Your task to perform on an android device: Search for Italian restaurants on Maps Image 0: 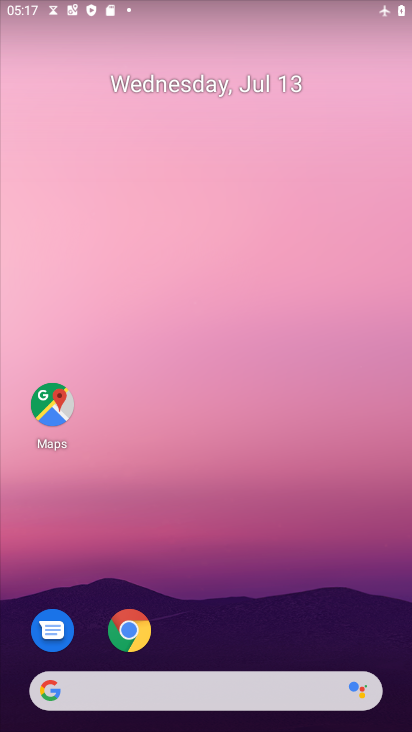
Step 0: drag from (231, 650) to (330, 0)
Your task to perform on an android device: Search for Italian restaurants on Maps Image 1: 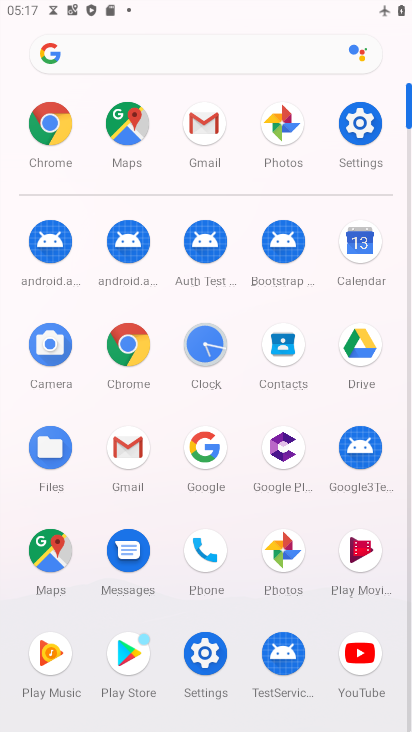
Step 1: click (48, 556)
Your task to perform on an android device: Search for Italian restaurants on Maps Image 2: 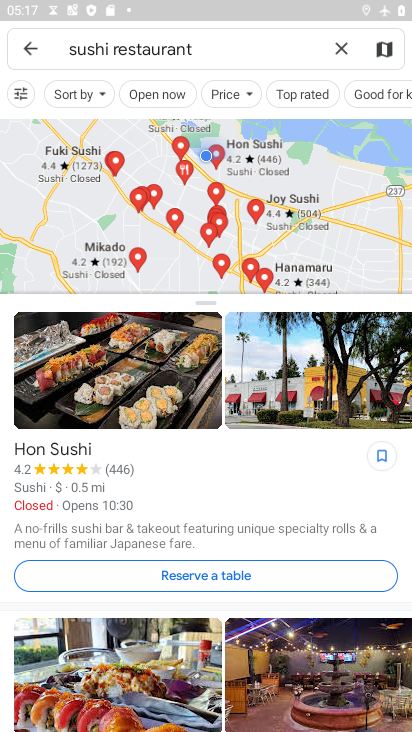
Step 2: click (334, 38)
Your task to perform on an android device: Search for Italian restaurants on Maps Image 3: 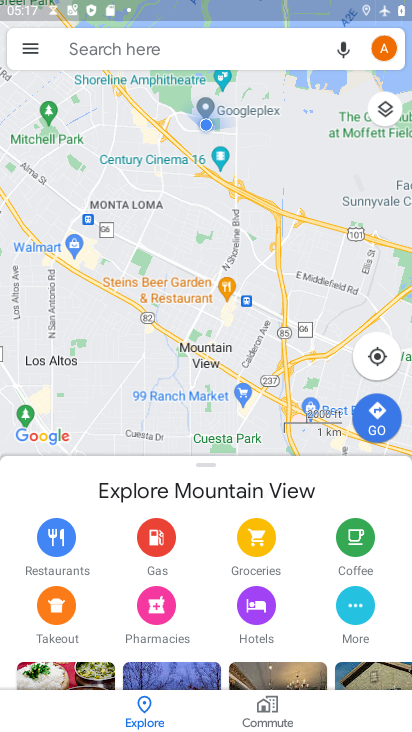
Step 3: click (240, 47)
Your task to perform on an android device: Search for Italian restaurants on Maps Image 4: 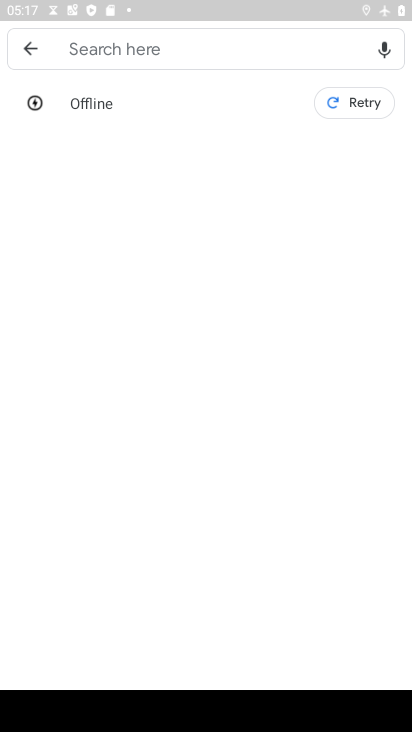
Step 4: type "italian restaurant"
Your task to perform on an android device: Search for Italian restaurants on Maps Image 5: 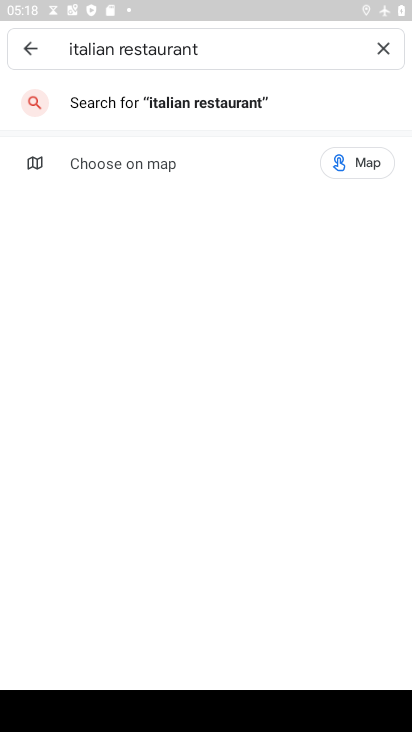
Step 5: task complete